Your task to perform on an android device: Go to CNN.com Image 0: 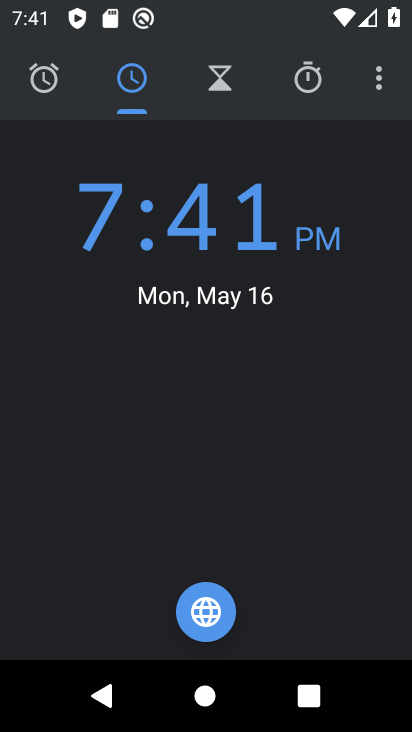
Step 0: press home button
Your task to perform on an android device: Go to CNN.com Image 1: 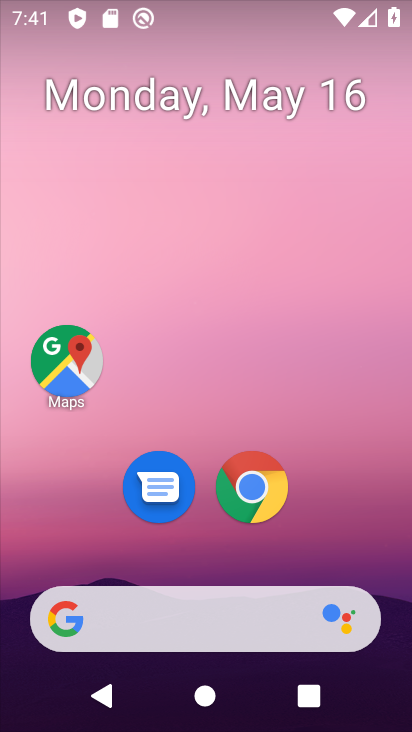
Step 1: click (189, 619)
Your task to perform on an android device: Go to CNN.com Image 2: 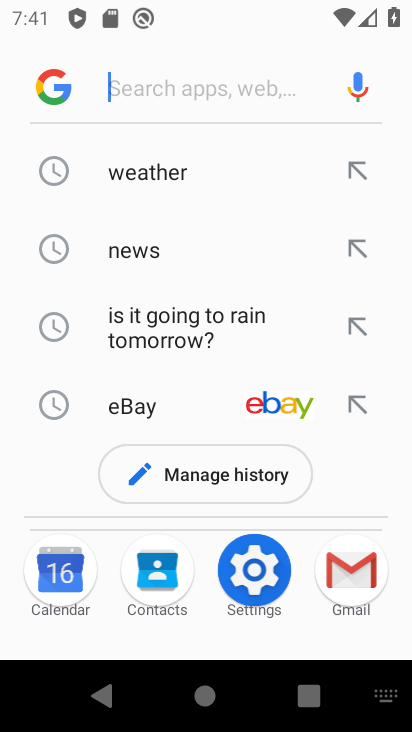
Step 2: type "cnn.com"
Your task to perform on an android device: Go to CNN.com Image 3: 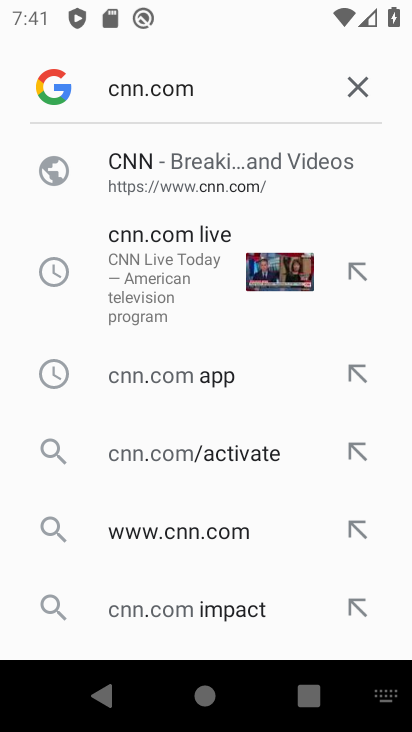
Step 3: click (130, 167)
Your task to perform on an android device: Go to CNN.com Image 4: 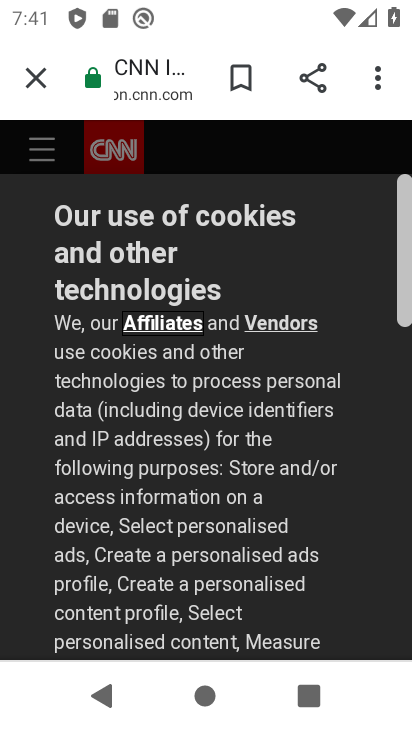
Step 4: task complete